Your task to perform on an android device: empty trash in the gmail app Image 0: 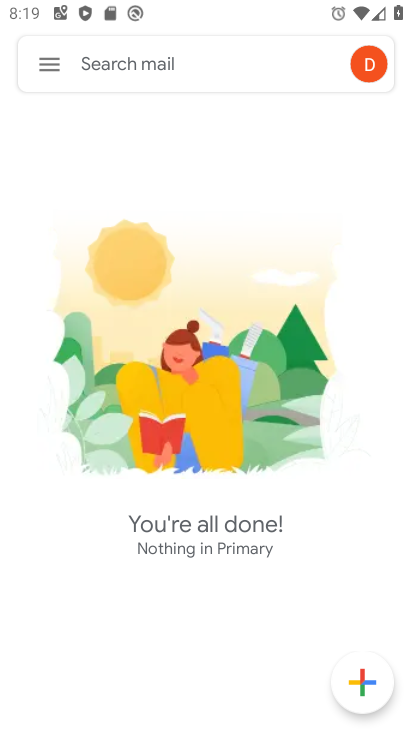
Step 0: press home button
Your task to perform on an android device: empty trash in the gmail app Image 1: 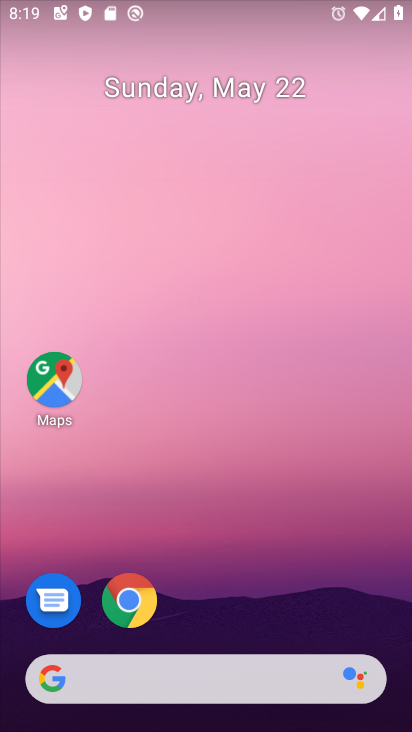
Step 1: drag from (288, 637) to (306, 133)
Your task to perform on an android device: empty trash in the gmail app Image 2: 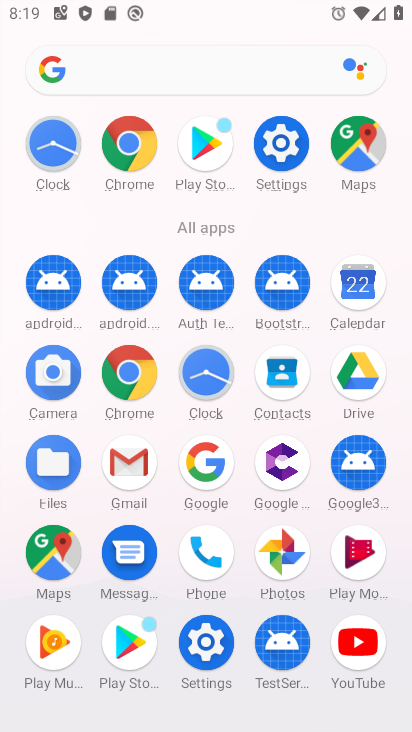
Step 2: click (126, 470)
Your task to perform on an android device: empty trash in the gmail app Image 3: 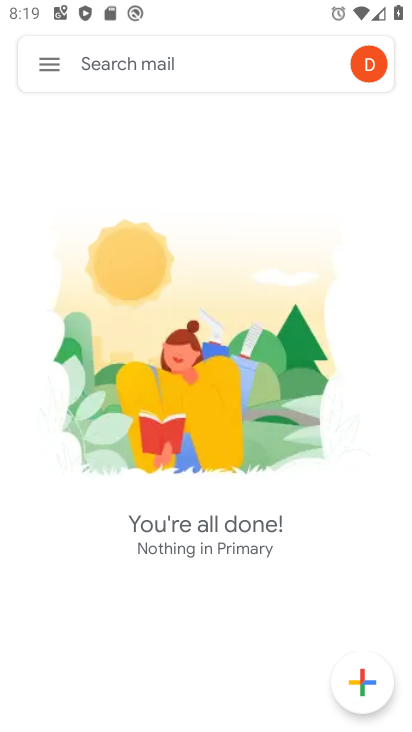
Step 3: click (55, 68)
Your task to perform on an android device: empty trash in the gmail app Image 4: 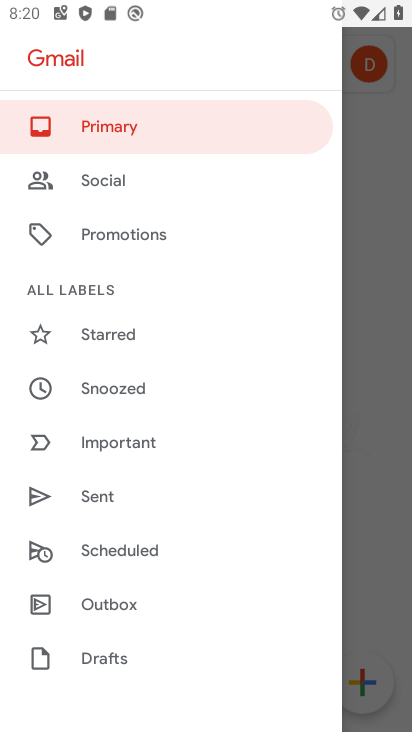
Step 4: drag from (120, 588) to (118, 412)
Your task to perform on an android device: empty trash in the gmail app Image 5: 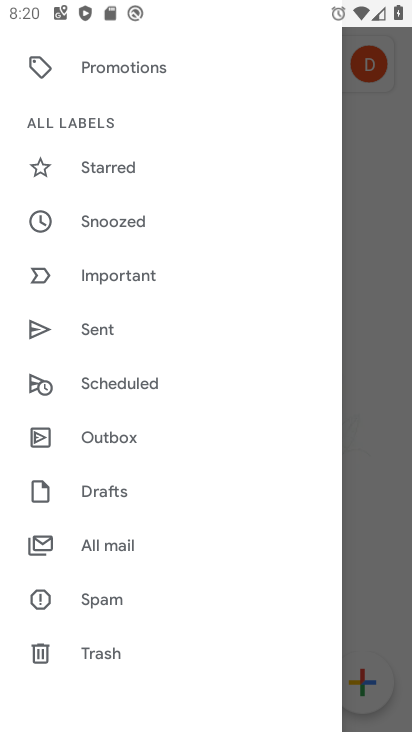
Step 5: click (109, 656)
Your task to perform on an android device: empty trash in the gmail app Image 6: 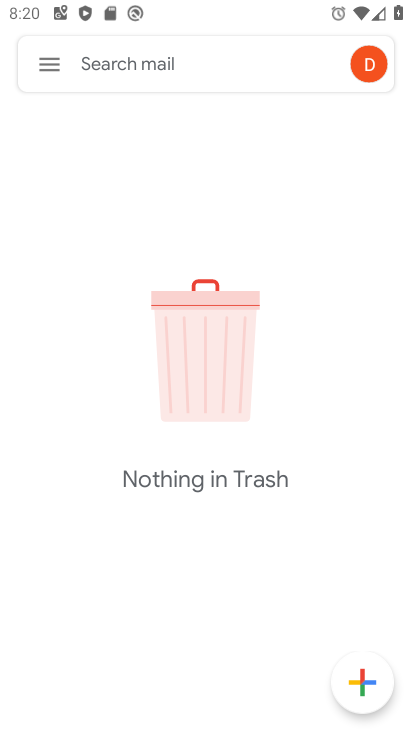
Step 6: task complete